Your task to perform on an android device: Open network settings Image 0: 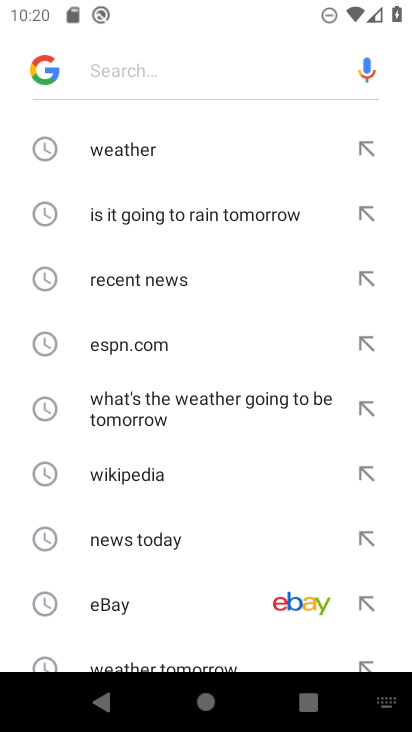
Step 0: press home button
Your task to perform on an android device: Open network settings Image 1: 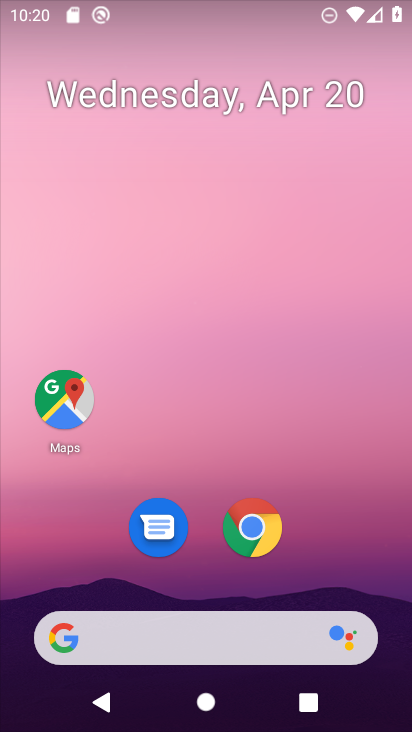
Step 1: drag from (198, 540) to (304, 11)
Your task to perform on an android device: Open network settings Image 2: 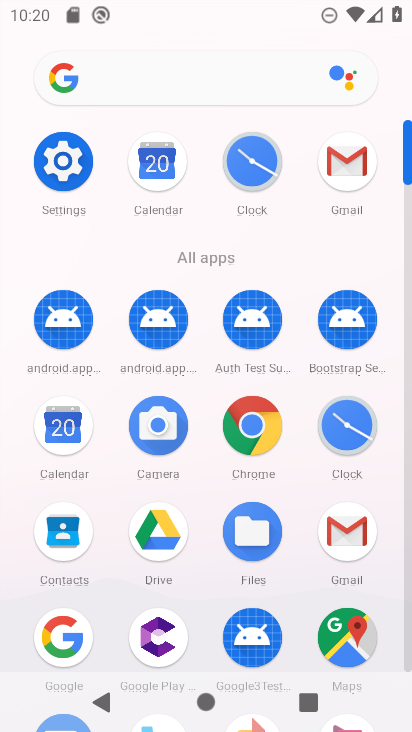
Step 2: click (54, 164)
Your task to perform on an android device: Open network settings Image 3: 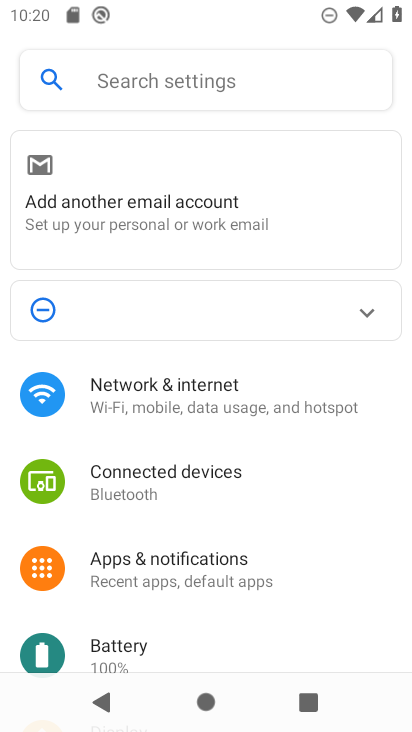
Step 3: click (196, 403)
Your task to perform on an android device: Open network settings Image 4: 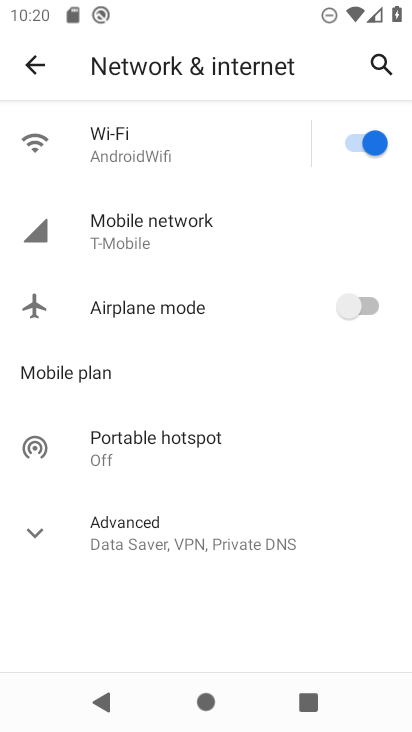
Step 4: task complete